Your task to perform on an android device: Open settings on Google Maps Image 0: 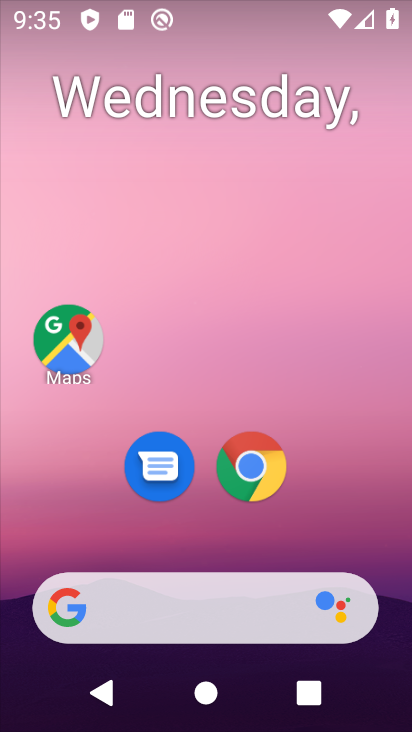
Step 0: click (150, 344)
Your task to perform on an android device: Open settings on Google Maps Image 1: 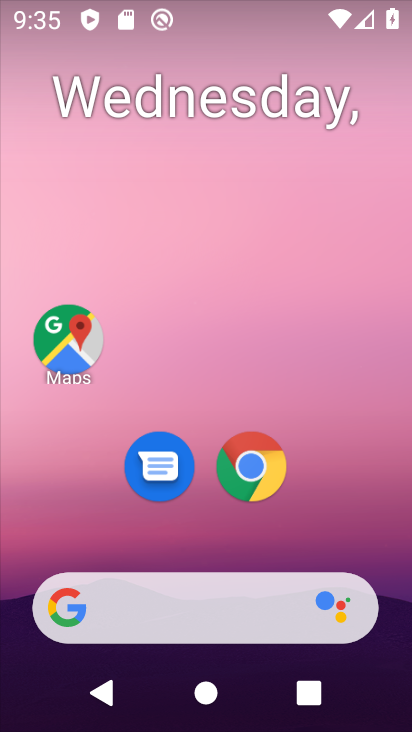
Step 1: click (71, 353)
Your task to perform on an android device: Open settings on Google Maps Image 2: 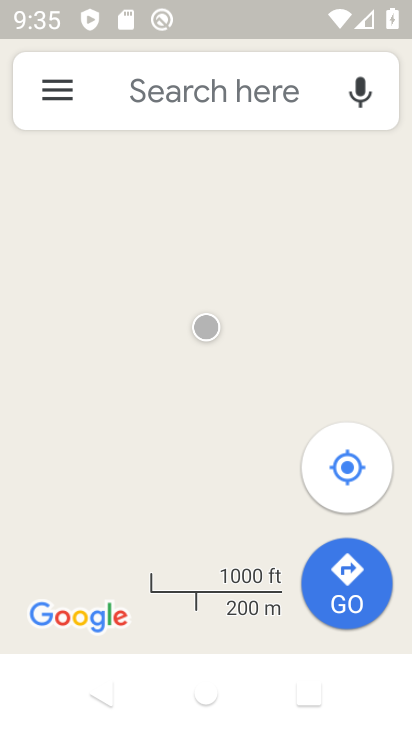
Step 2: click (64, 96)
Your task to perform on an android device: Open settings on Google Maps Image 3: 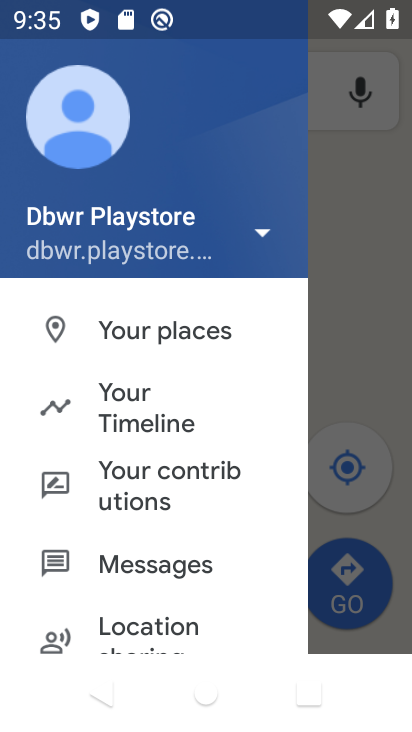
Step 3: drag from (93, 642) to (69, 75)
Your task to perform on an android device: Open settings on Google Maps Image 4: 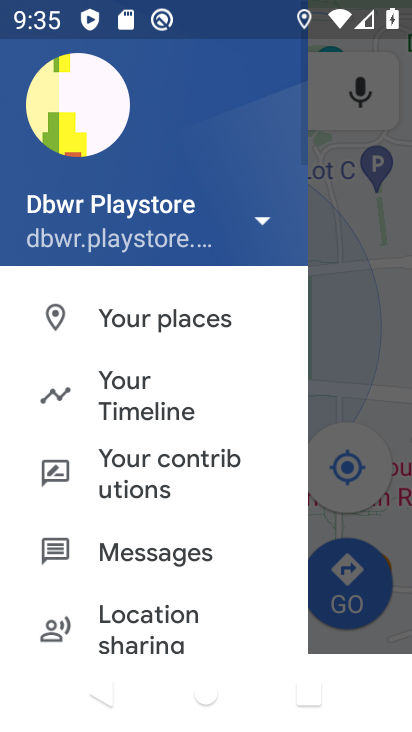
Step 4: drag from (236, 639) to (185, 197)
Your task to perform on an android device: Open settings on Google Maps Image 5: 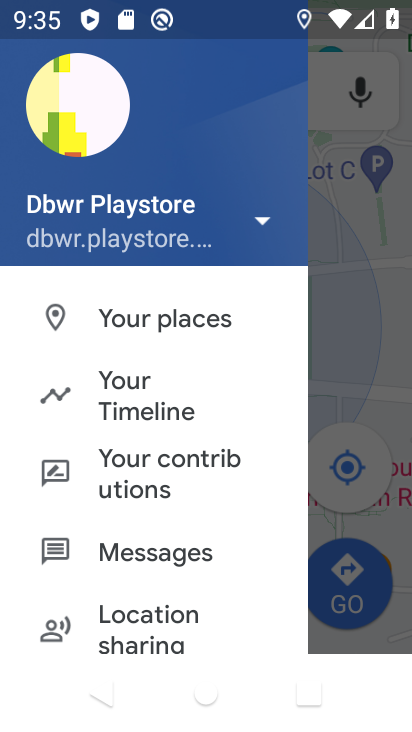
Step 5: click (245, 654)
Your task to perform on an android device: Open settings on Google Maps Image 6: 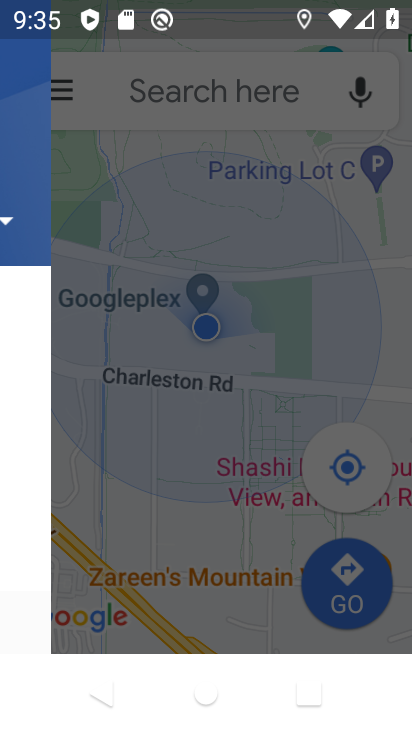
Step 6: drag from (239, 491) to (221, 287)
Your task to perform on an android device: Open settings on Google Maps Image 7: 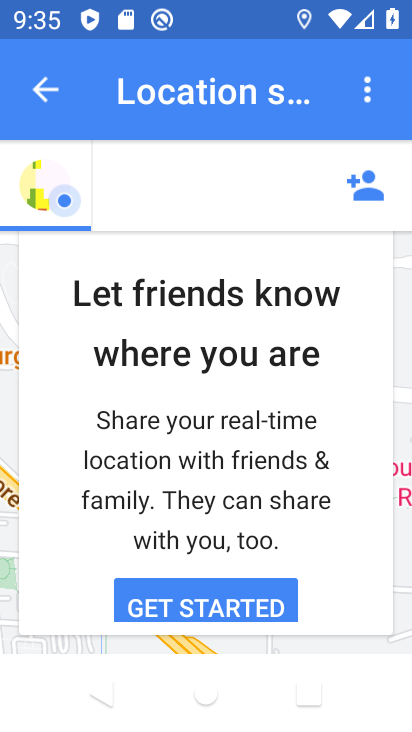
Step 7: click (58, 87)
Your task to perform on an android device: Open settings on Google Maps Image 8: 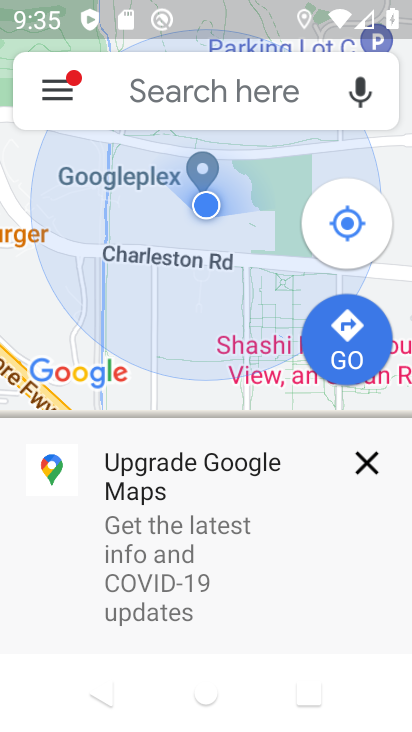
Step 8: click (60, 97)
Your task to perform on an android device: Open settings on Google Maps Image 9: 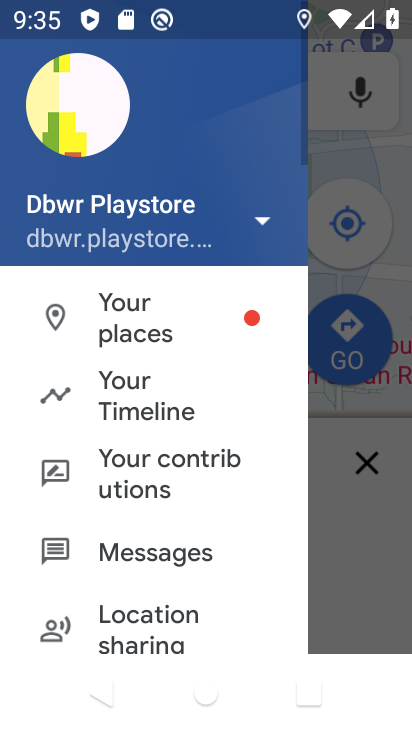
Step 9: click (181, 623)
Your task to perform on an android device: Open settings on Google Maps Image 10: 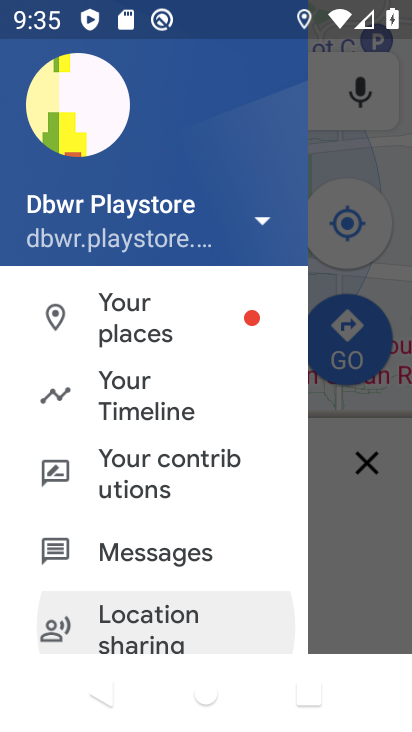
Step 10: drag from (184, 463) to (197, 371)
Your task to perform on an android device: Open settings on Google Maps Image 11: 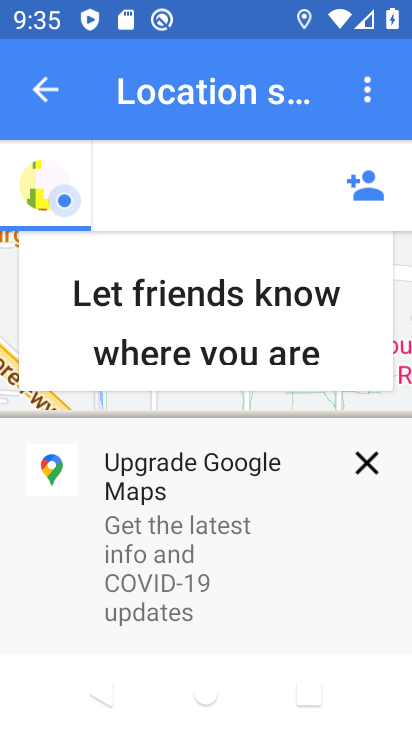
Step 11: click (199, 298)
Your task to perform on an android device: Open settings on Google Maps Image 12: 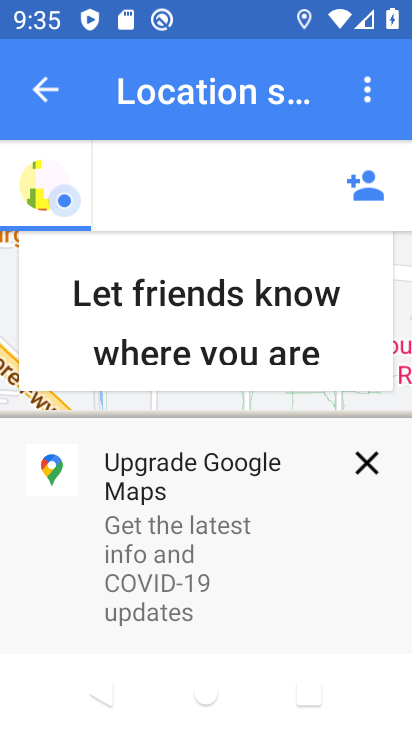
Step 12: click (370, 466)
Your task to perform on an android device: Open settings on Google Maps Image 13: 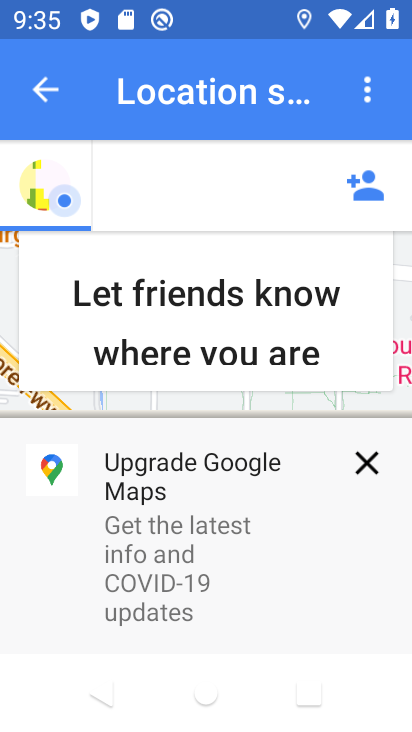
Step 13: click (370, 466)
Your task to perform on an android device: Open settings on Google Maps Image 14: 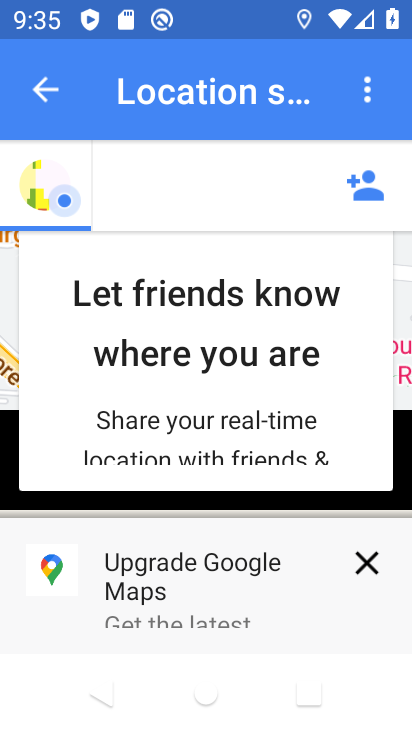
Step 14: click (370, 466)
Your task to perform on an android device: Open settings on Google Maps Image 15: 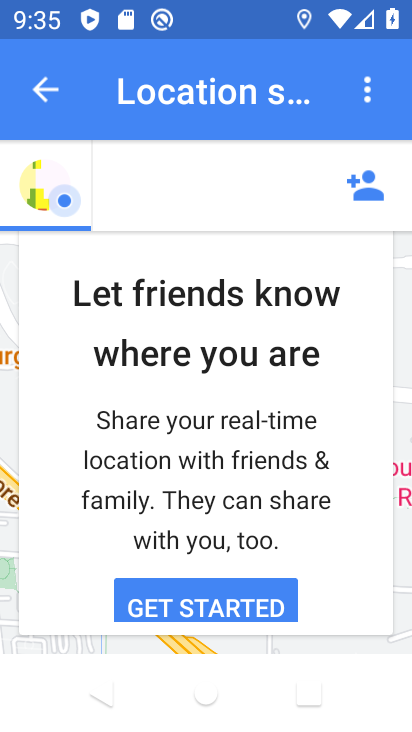
Step 15: click (42, 97)
Your task to perform on an android device: Open settings on Google Maps Image 16: 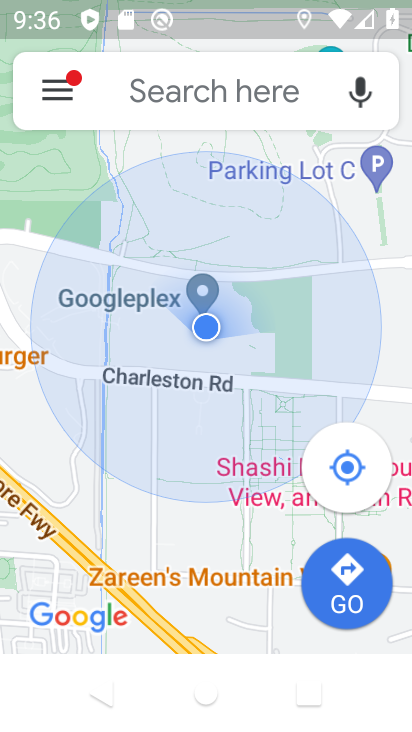
Step 16: click (42, 97)
Your task to perform on an android device: Open settings on Google Maps Image 17: 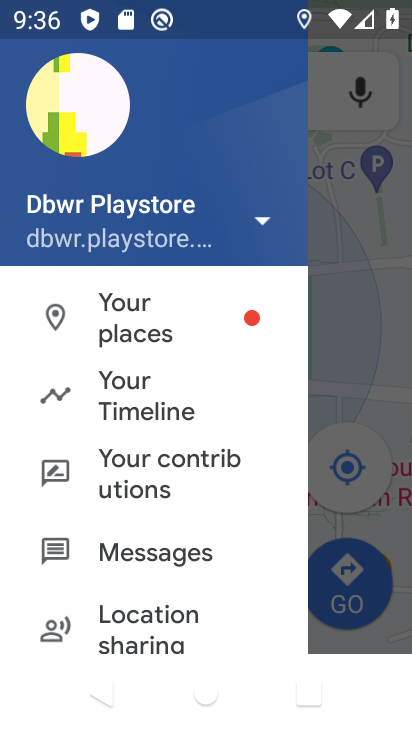
Step 17: drag from (217, 374) to (217, 206)
Your task to perform on an android device: Open settings on Google Maps Image 18: 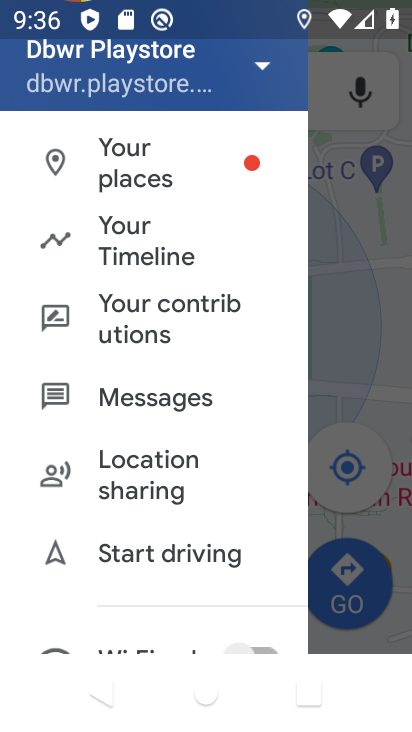
Step 18: drag from (193, 626) to (172, 108)
Your task to perform on an android device: Open settings on Google Maps Image 19: 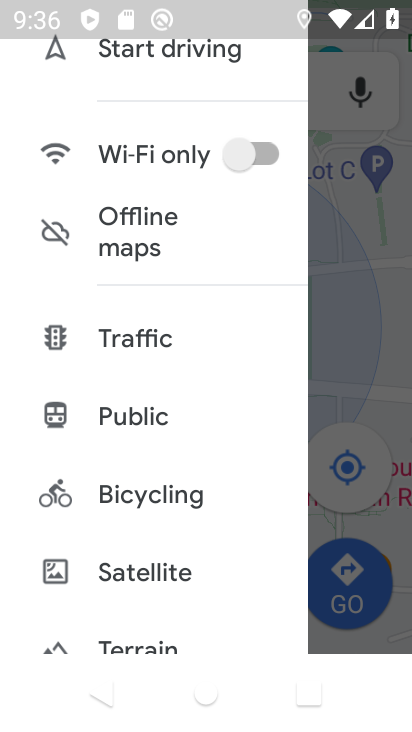
Step 19: drag from (159, 613) to (224, 93)
Your task to perform on an android device: Open settings on Google Maps Image 20: 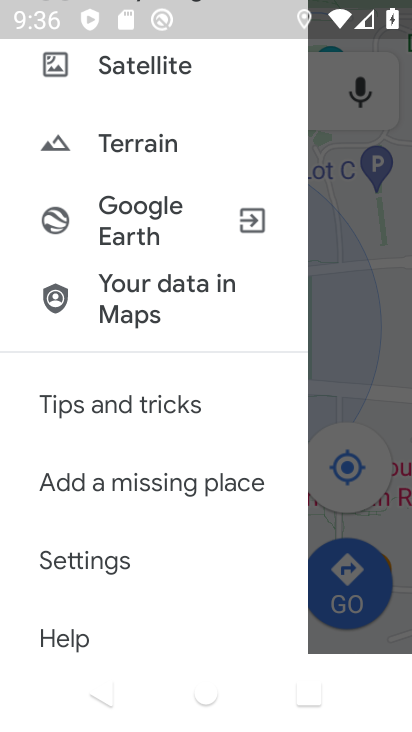
Step 20: click (106, 563)
Your task to perform on an android device: Open settings on Google Maps Image 21: 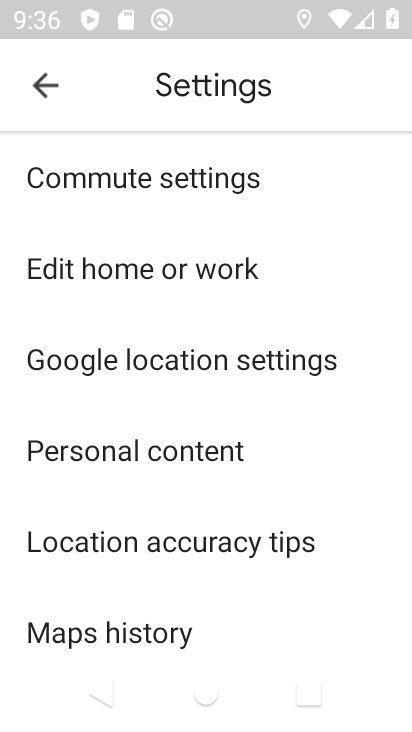
Step 21: task complete